Your task to perform on an android device: find which apps use the phone's location Image 0: 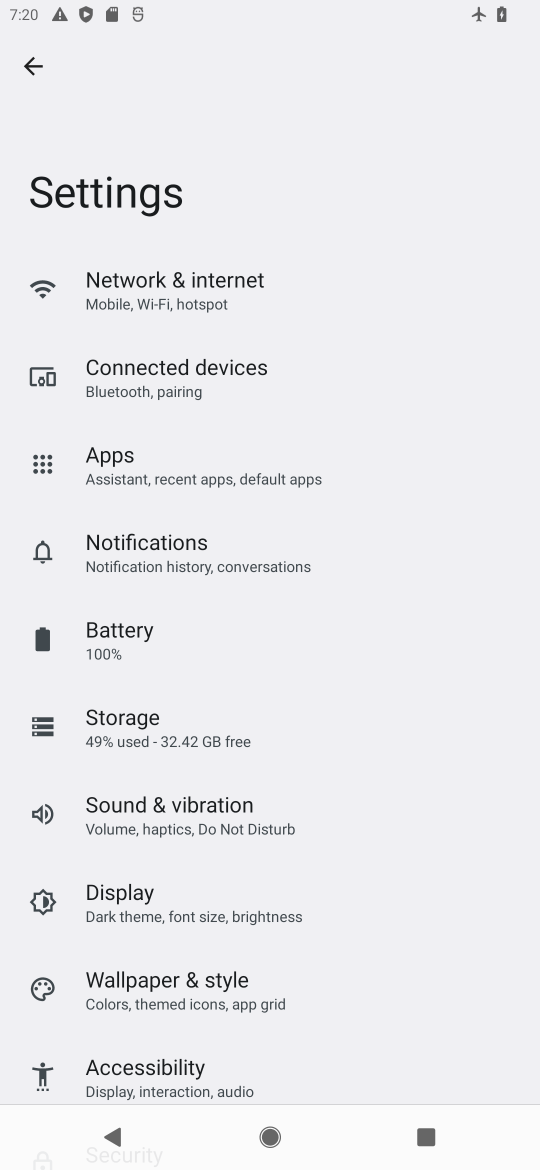
Step 0: press home button
Your task to perform on an android device: find which apps use the phone's location Image 1: 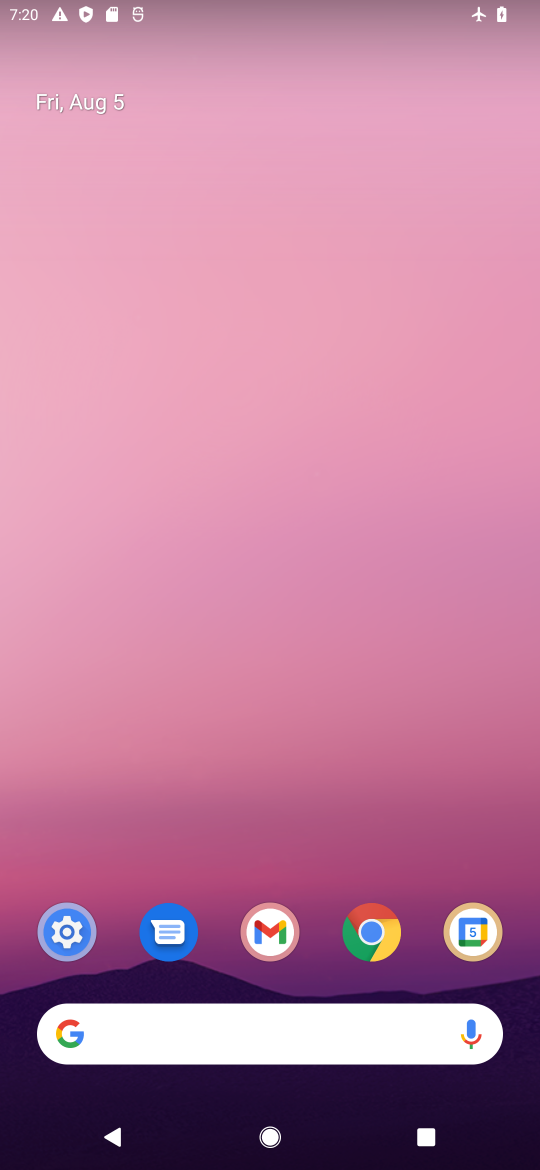
Step 1: drag from (182, 1039) to (234, 111)
Your task to perform on an android device: find which apps use the phone's location Image 2: 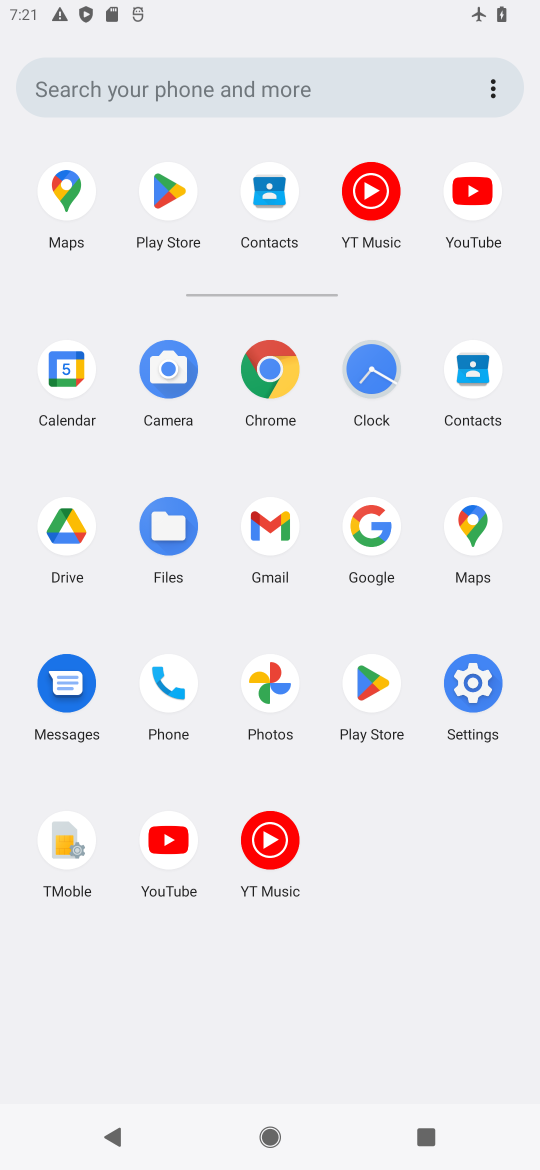
Step 2: click (476, 682)
Your task to perform on an android device: find which apps use the phone's location Image 3: 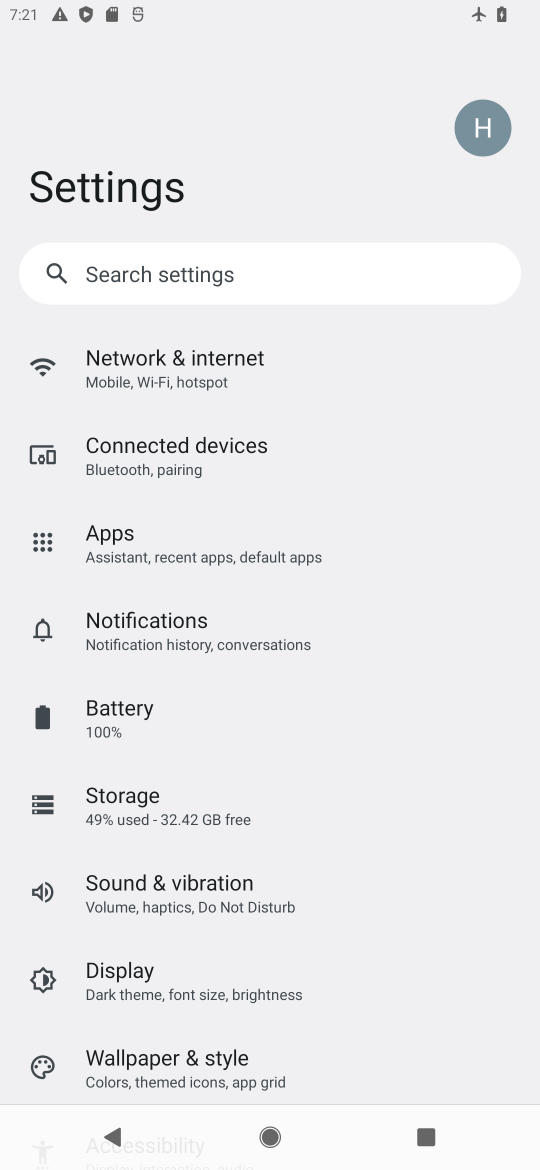
Step 3: drag from (158, 940) to (199, 648)
Your task to perform on an android device: find which apps use the phone's location Image 4: 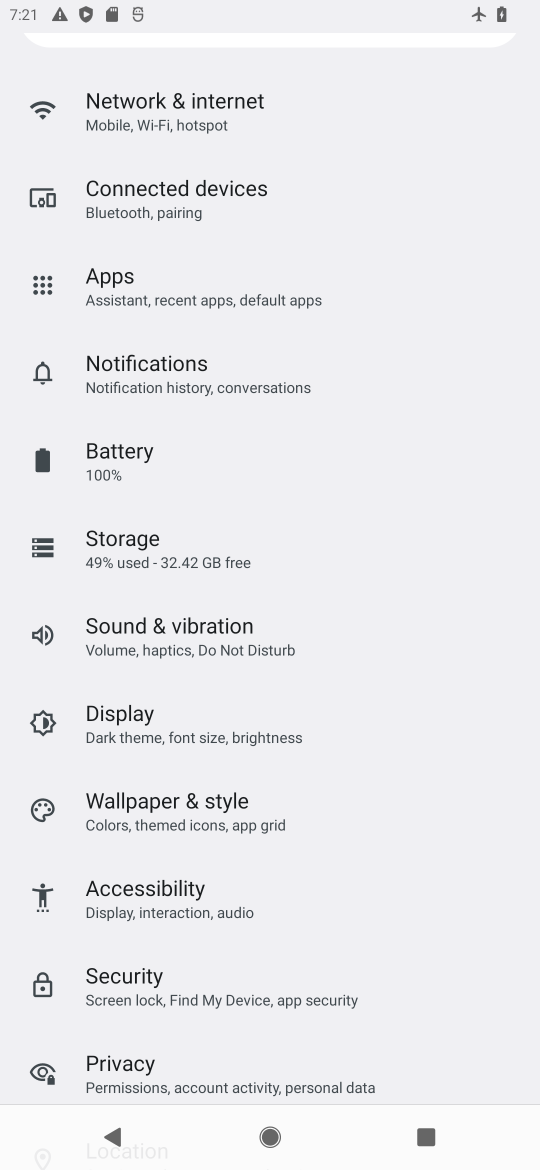
Step 4: drag from (150, 849) to (191, 693)
Your task to perform on an android device: find which apps use the phone's location Image 5: 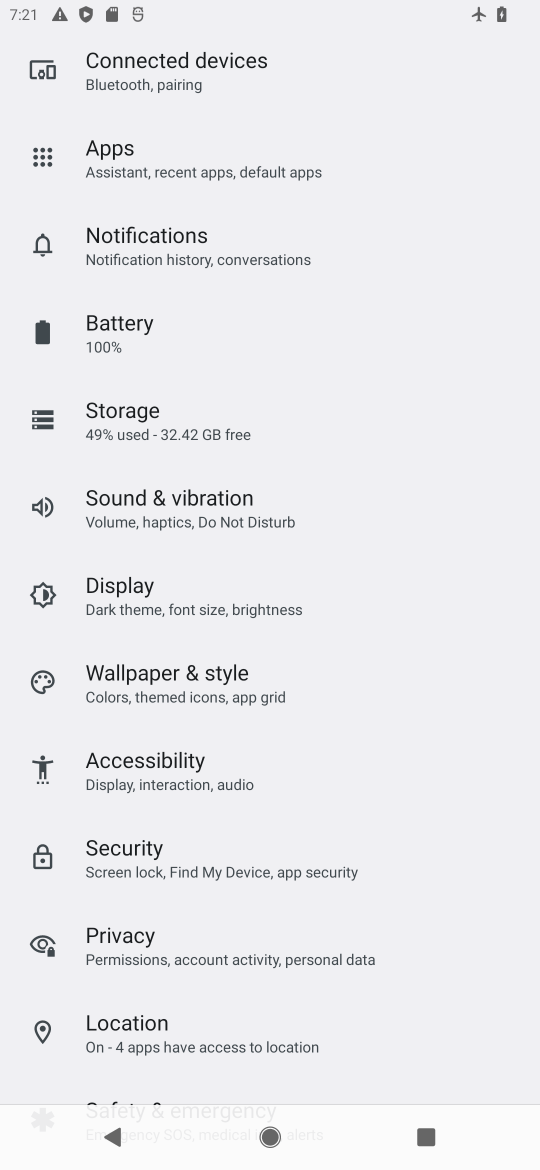
Step 5: drag from (151, 790) to (261, 643)
Your task to perform on an android device: find which apps use the phone's location Image 6: 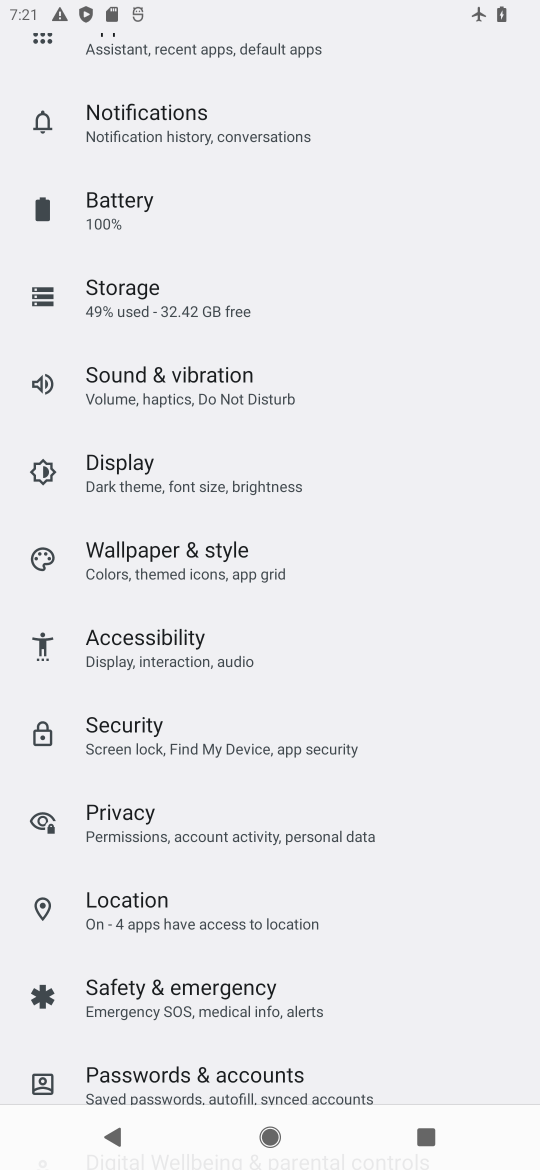
Step 6: drag from (154, 842) to (238, 683)
Your task to perform on an android device: find which apps use the phone's location Image 7: 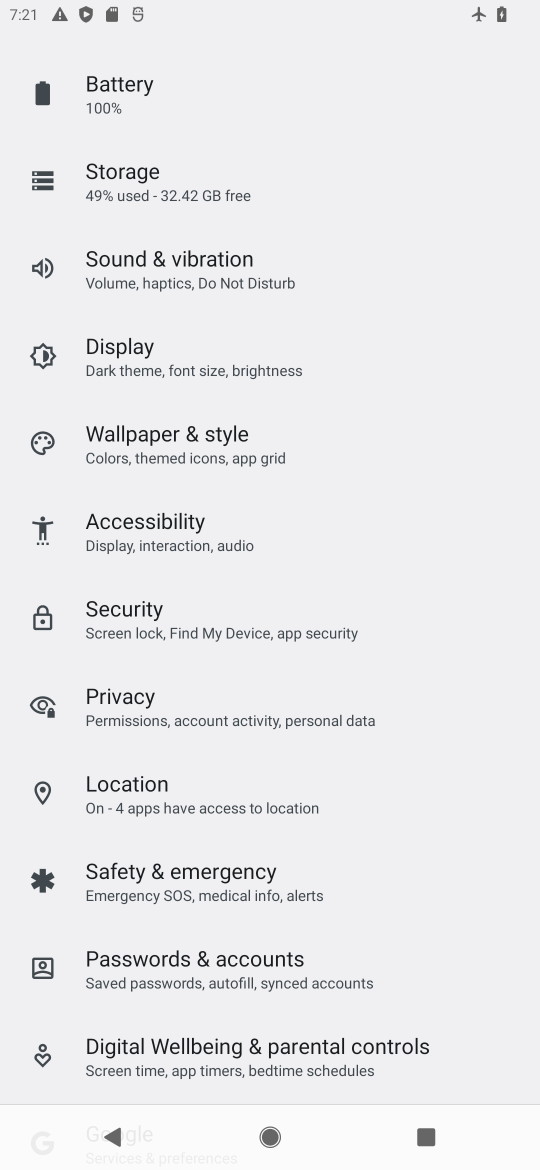
Step 7: click (226, 797)
Your task to perform on an android device: find which apps use the phone's location Image 8: 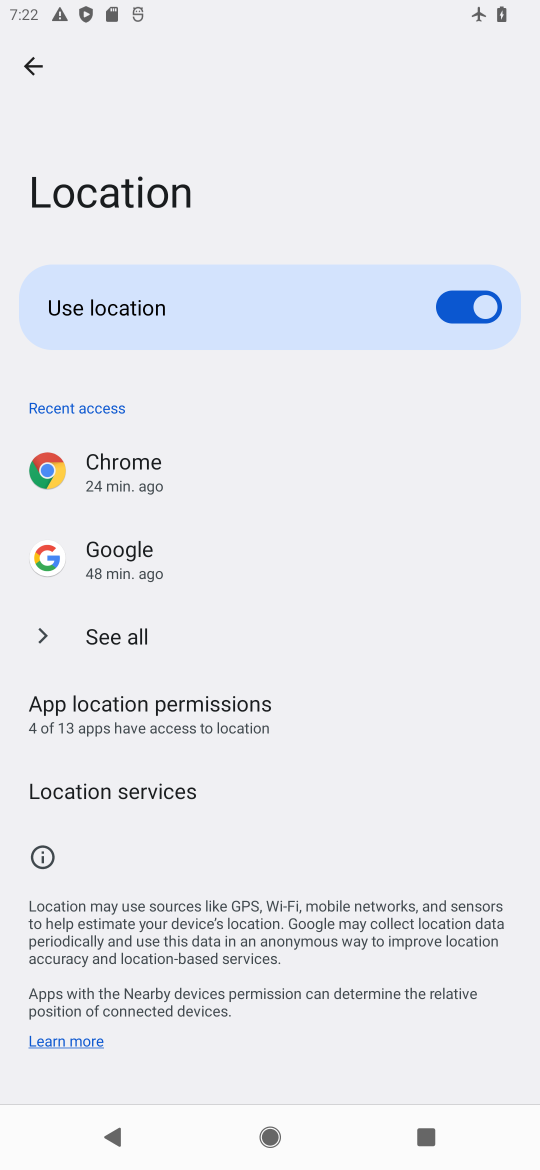
Step 8: click (190, 727)
Your task to perform on an android device: find which apps use the phone's location Image 9: 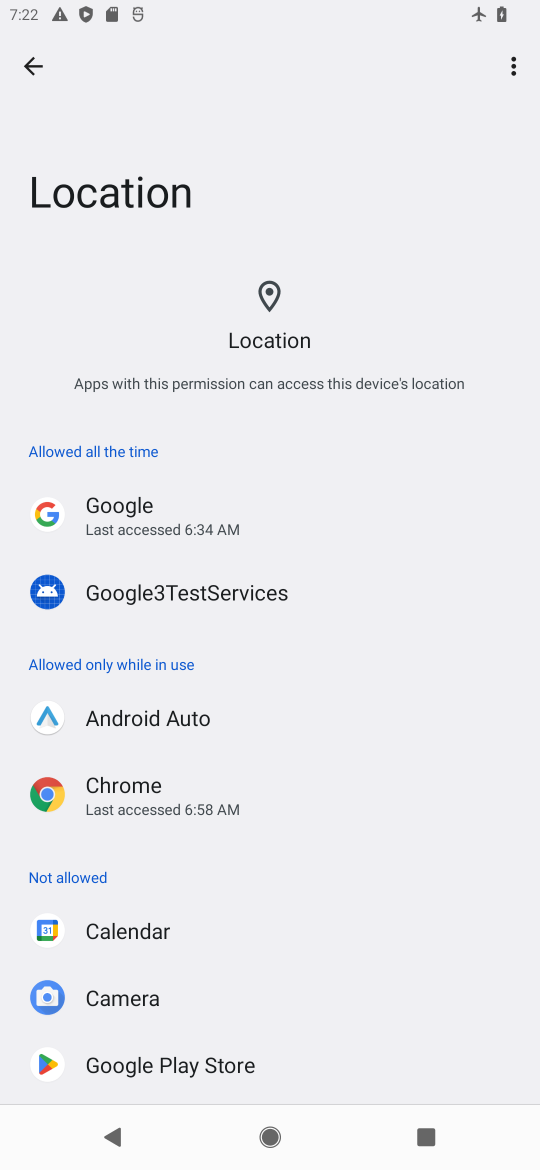
Step 9: drag from (186, 881) to (216, 722)
Your task to perform on an android device: find which apps use the phone's location Image 10: 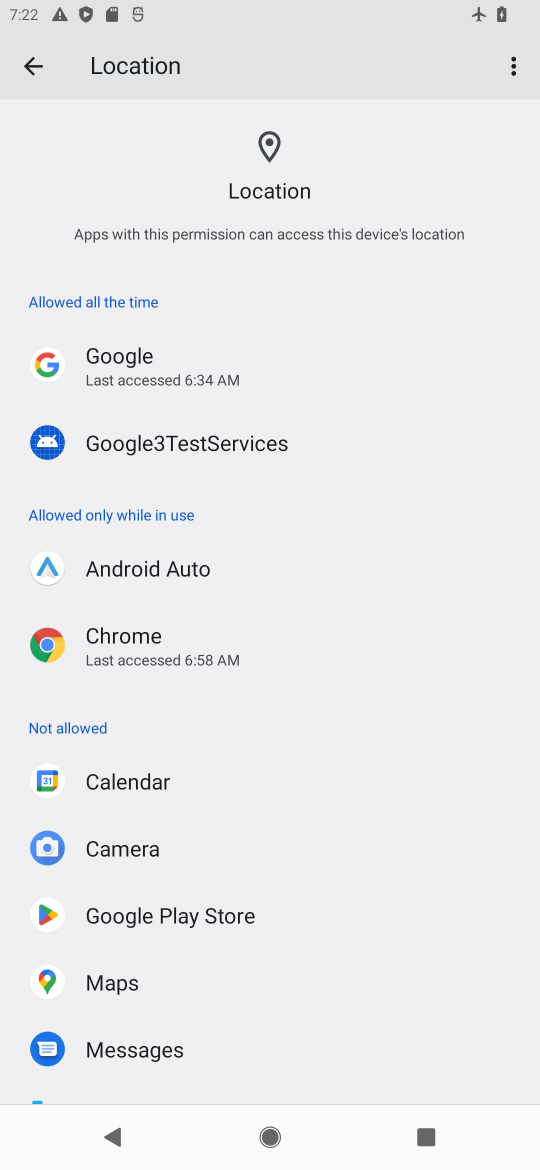
Step 10: drag from (199, 1039) to (296, 860)
Your task to perform on an android device: find which apps use the phone's location Image 11: 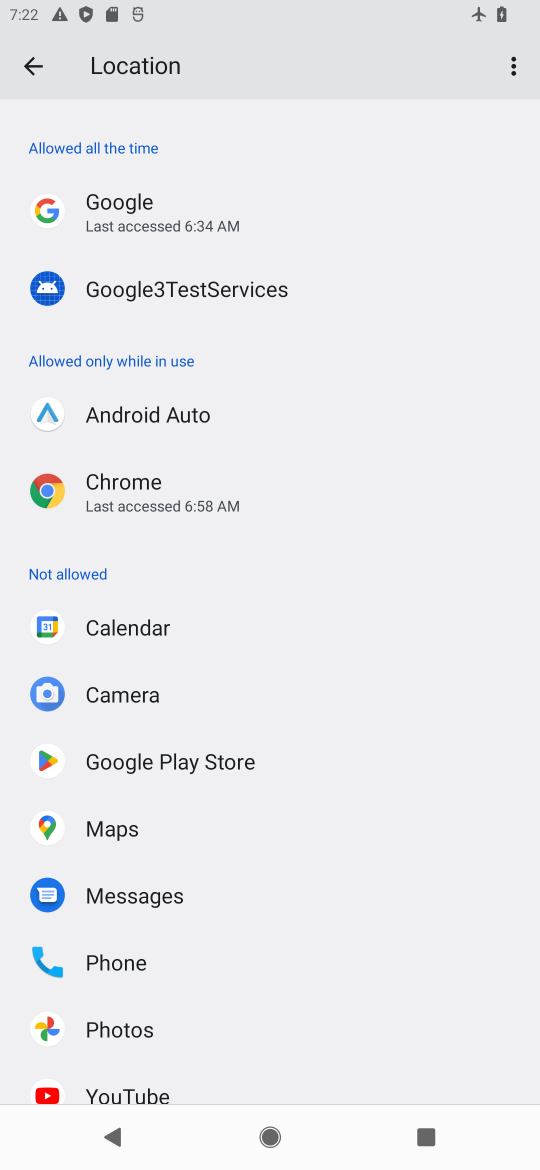
Step 11: drag from (246, 996) to (348, 713)
Your task to perform on an android device: find which apps use the phone's location Image 12: 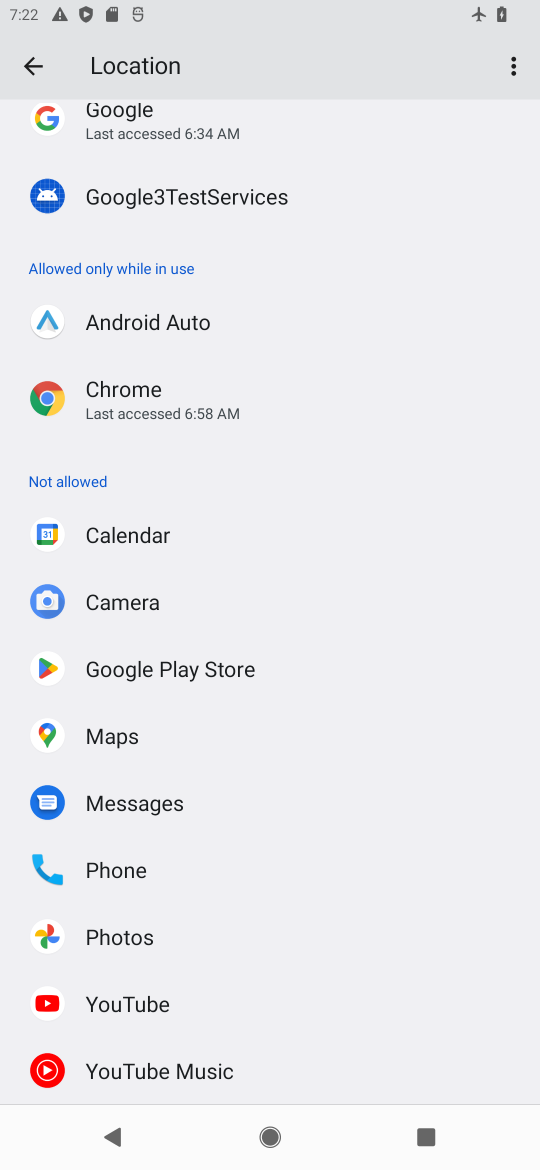
Step 12: drag from (251, 1031) to (356, 565)
Your task to perform on an android device: find which apps use the phone's location Image 13: 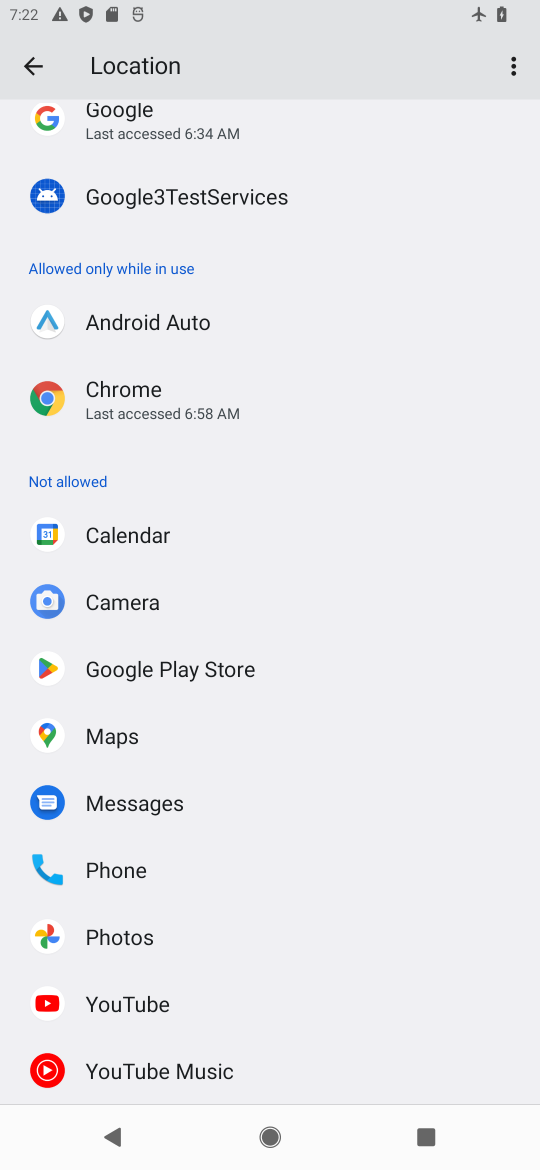
Step 13: click (103, 754)
Your task to perform on an android device: find which apps use the phone's location Image 14: 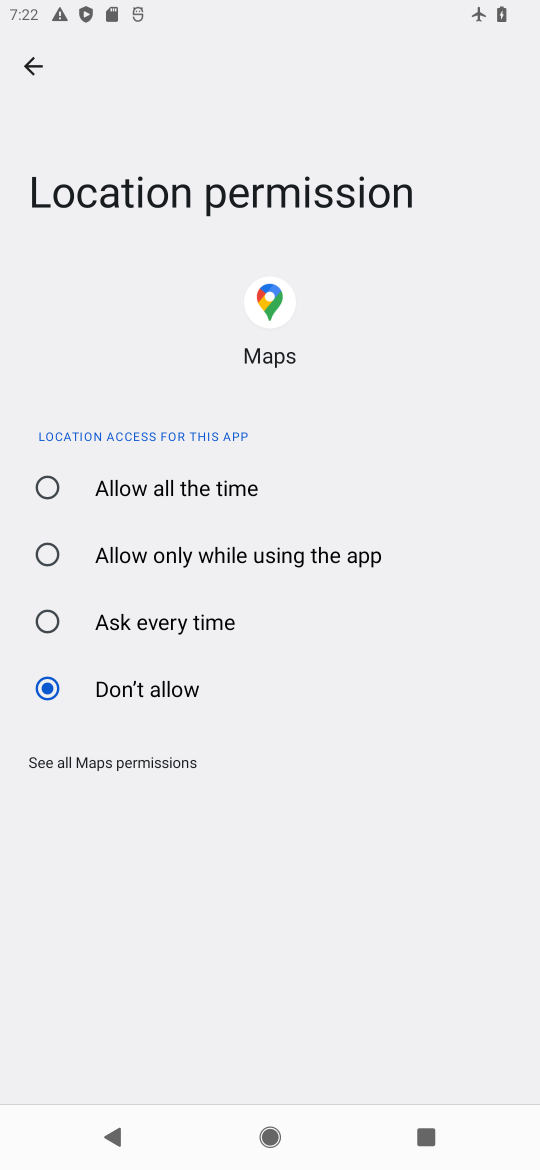
Step 14: click (53, 485)
Your task to perform on an android device: find which apps use the phone's location Image 15: 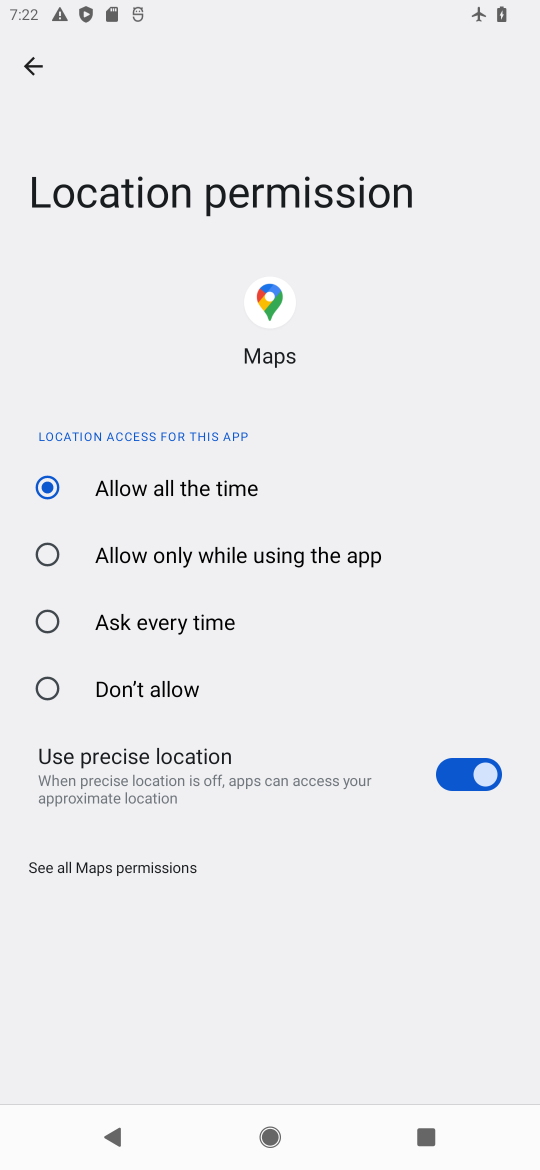
Step 15: task complete